Your task to perform on an android device: Add logitech g910 to the cart on ebay.com, then select checkout. Image 0: 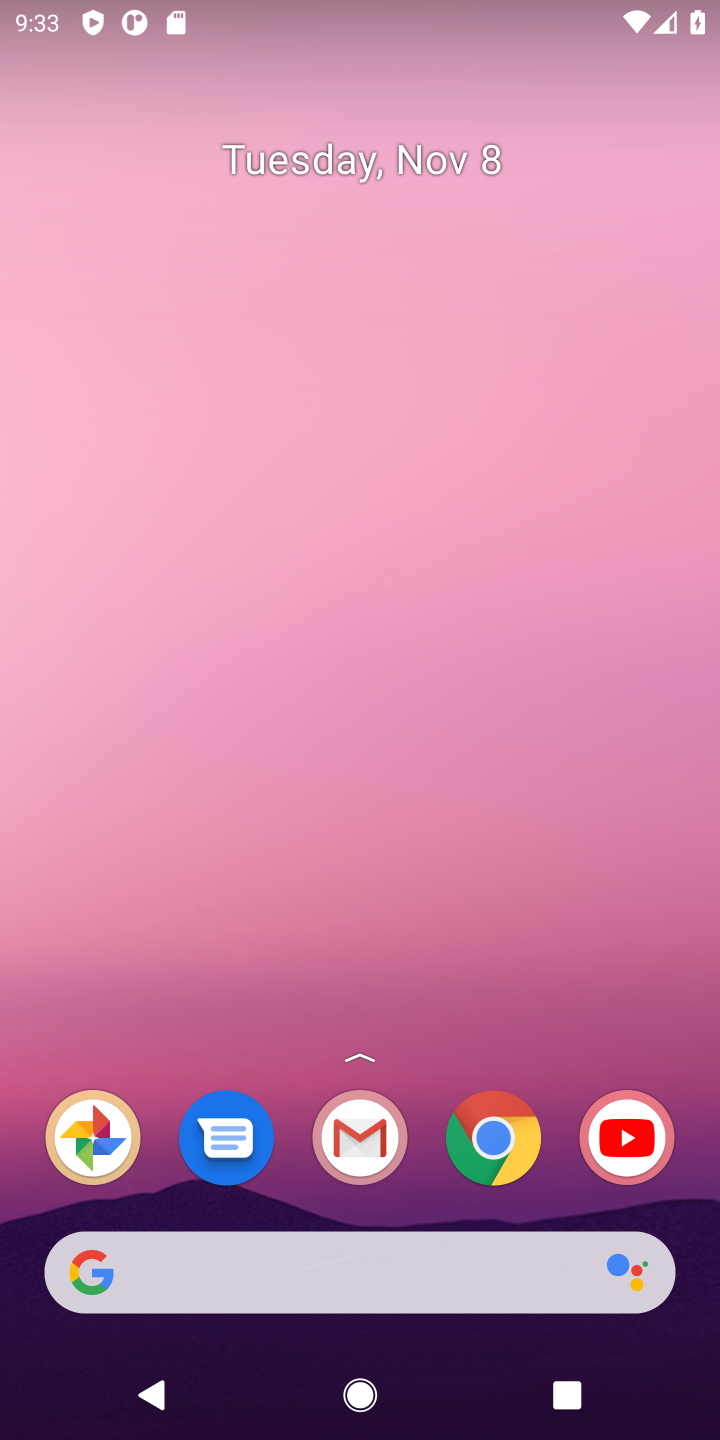
Step 0: press home button
Your task to perform on an android device: Add logitech g910 to the cart on ebay.com, then select checkout. Image 1: 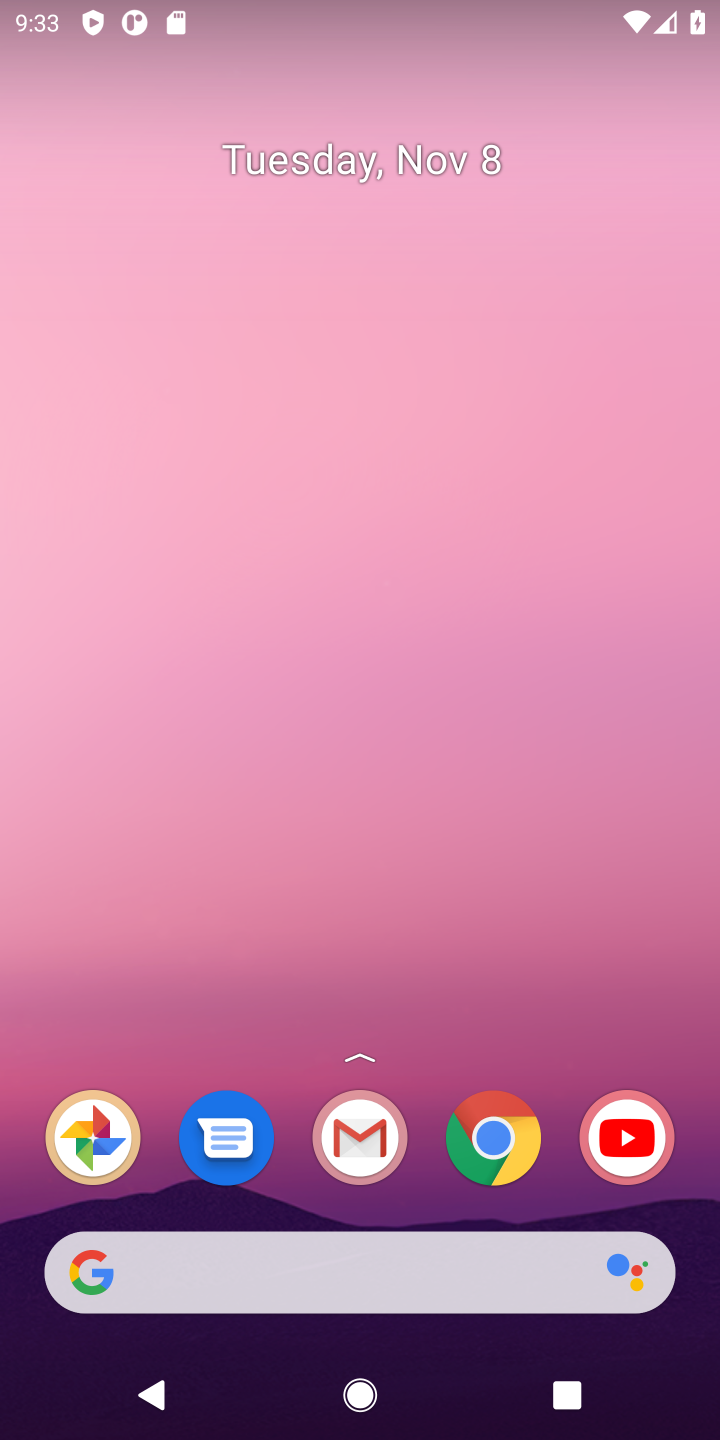
Step 1: click (497, 1141)
Your task to perform on an android device: Add logitech g910 to the cart on ebay.com, then select checkout. Image 2: 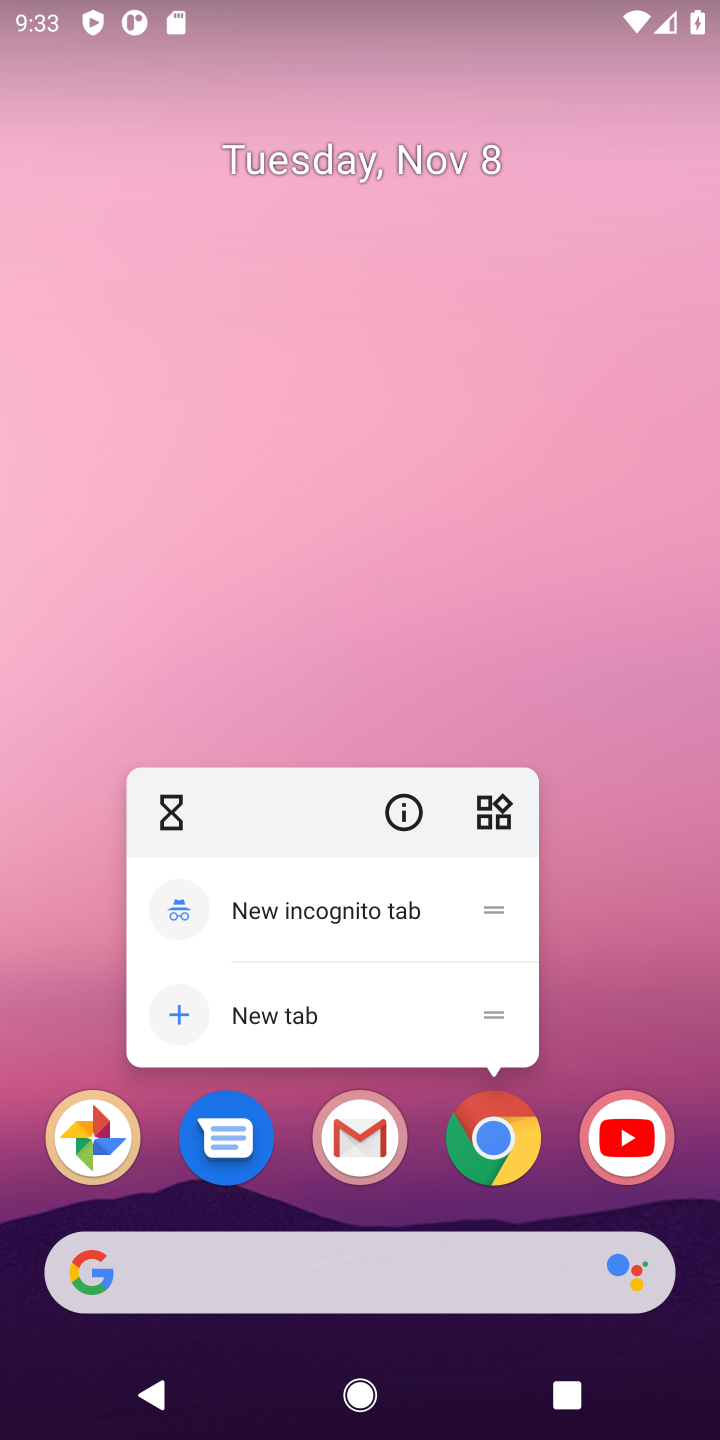
Step 2: click (497, 1148)
Your task to perform on an android device: Add logitech g910 to the cart on ebay.com, then select checkout. Image 3: 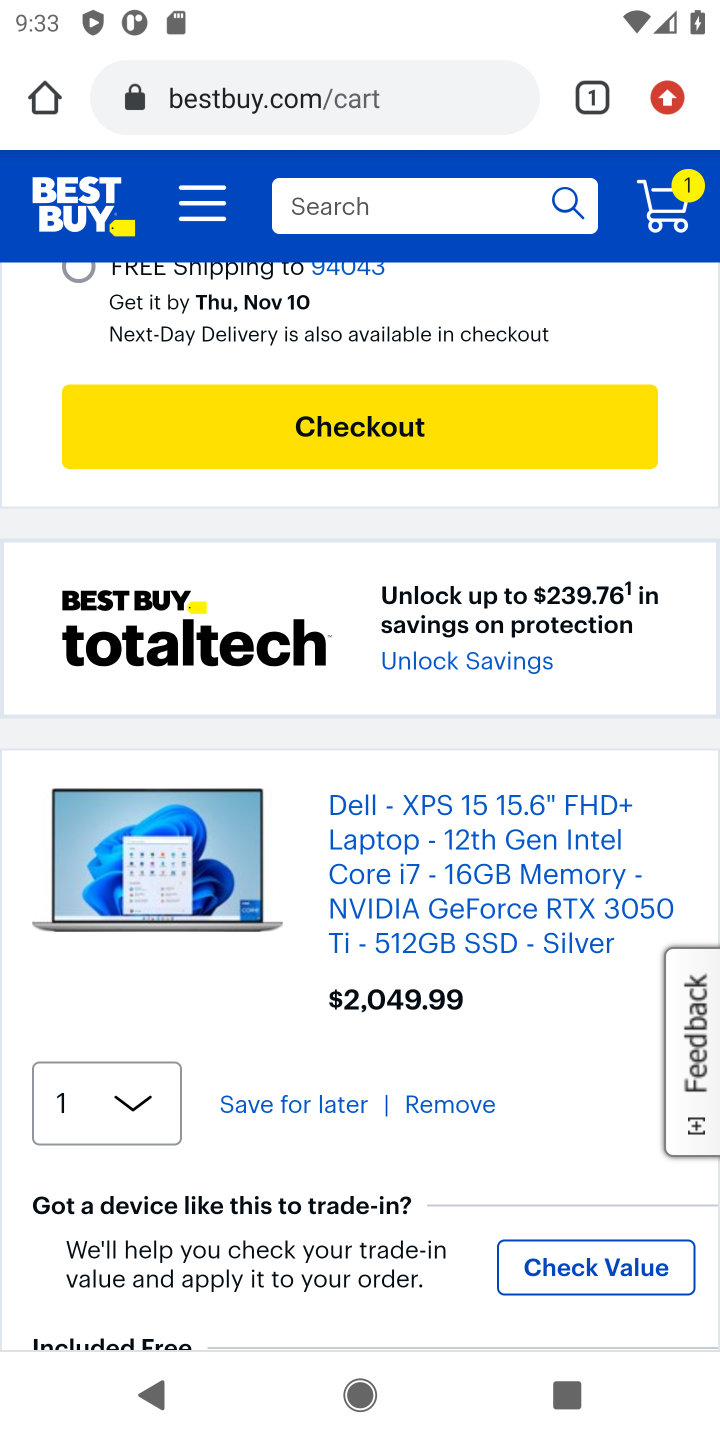
Step 3: click (382, 99)
Your task to perform on an android device: Add logitech g910 to the cart on ebay.com, then select checkout. Image 4: 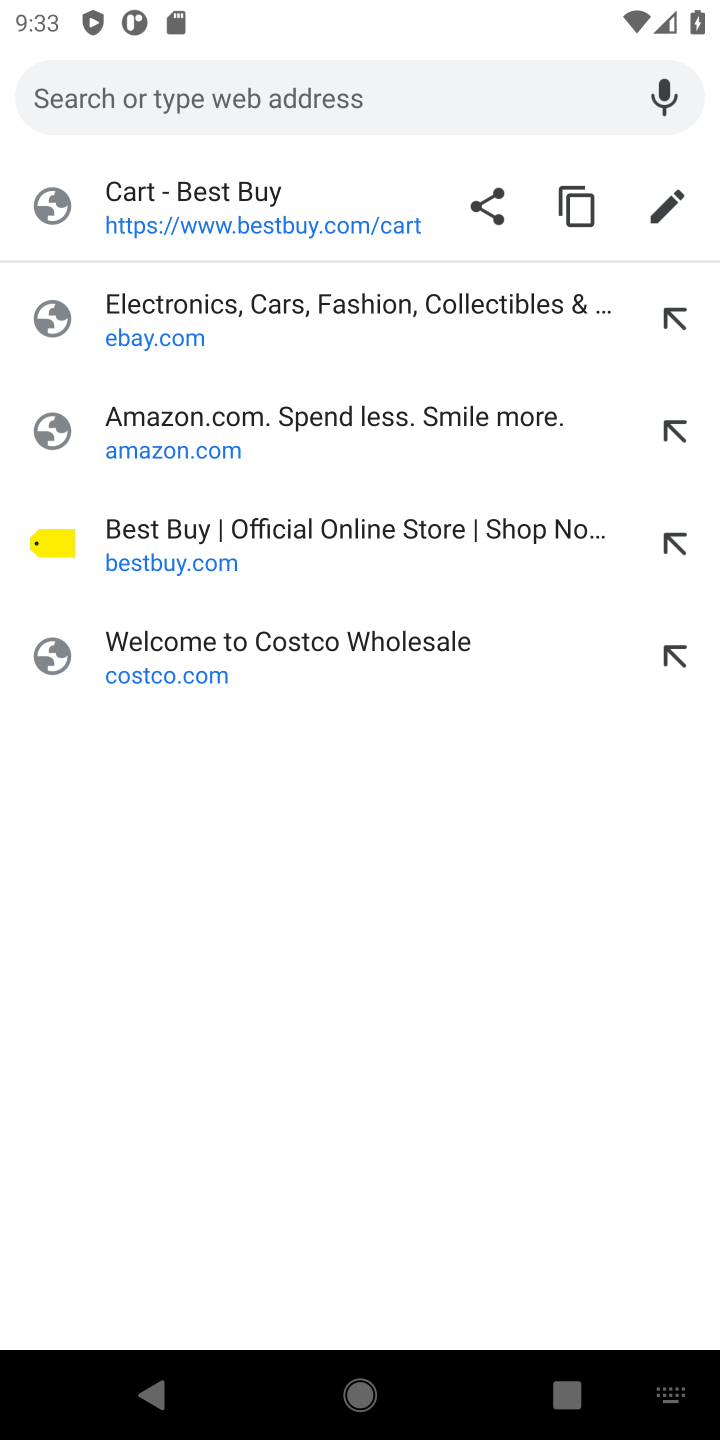
Step 4: click (158, 338)
Your task to perform on an android device: Add logitech g910 to the cart on ebay.com, then select checkout. Image 5: 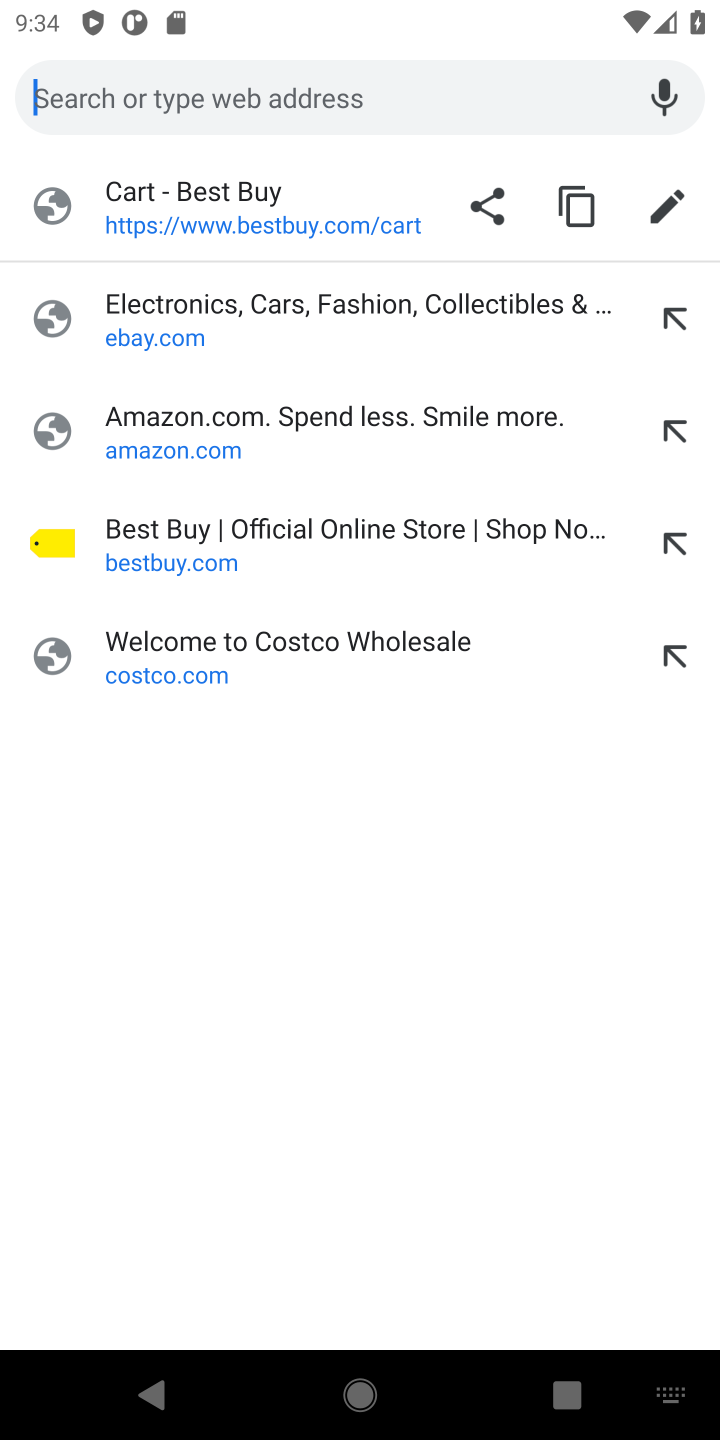
Step 5: click (129, 331)
Your task to perform on an android device: Add logitech g910 to the cart on ebay.com, then select checkout. Image 6: 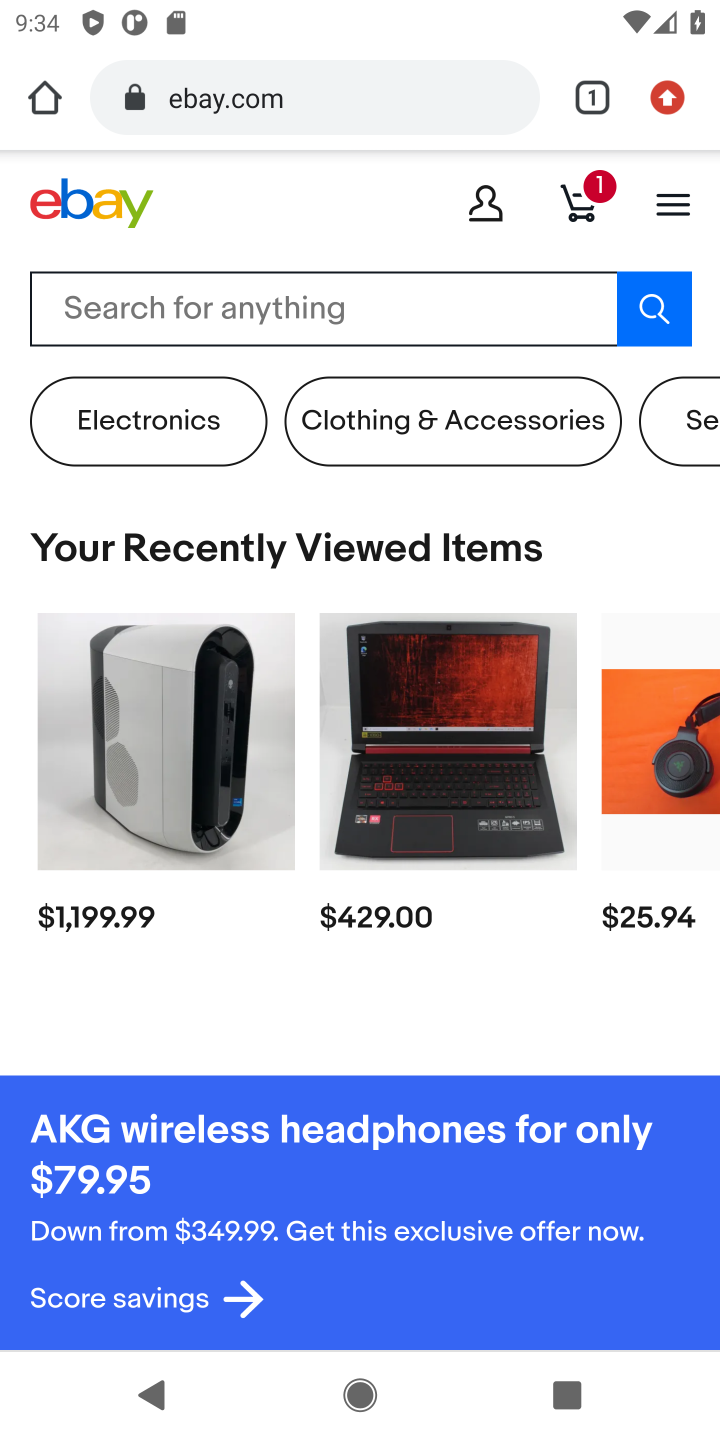
Step 6: drag from (349, 1001) to (664, 130)
Your task to perform on an android device: Add logitech g910 to the cart on ebay.com, then select checkout. Image 7: 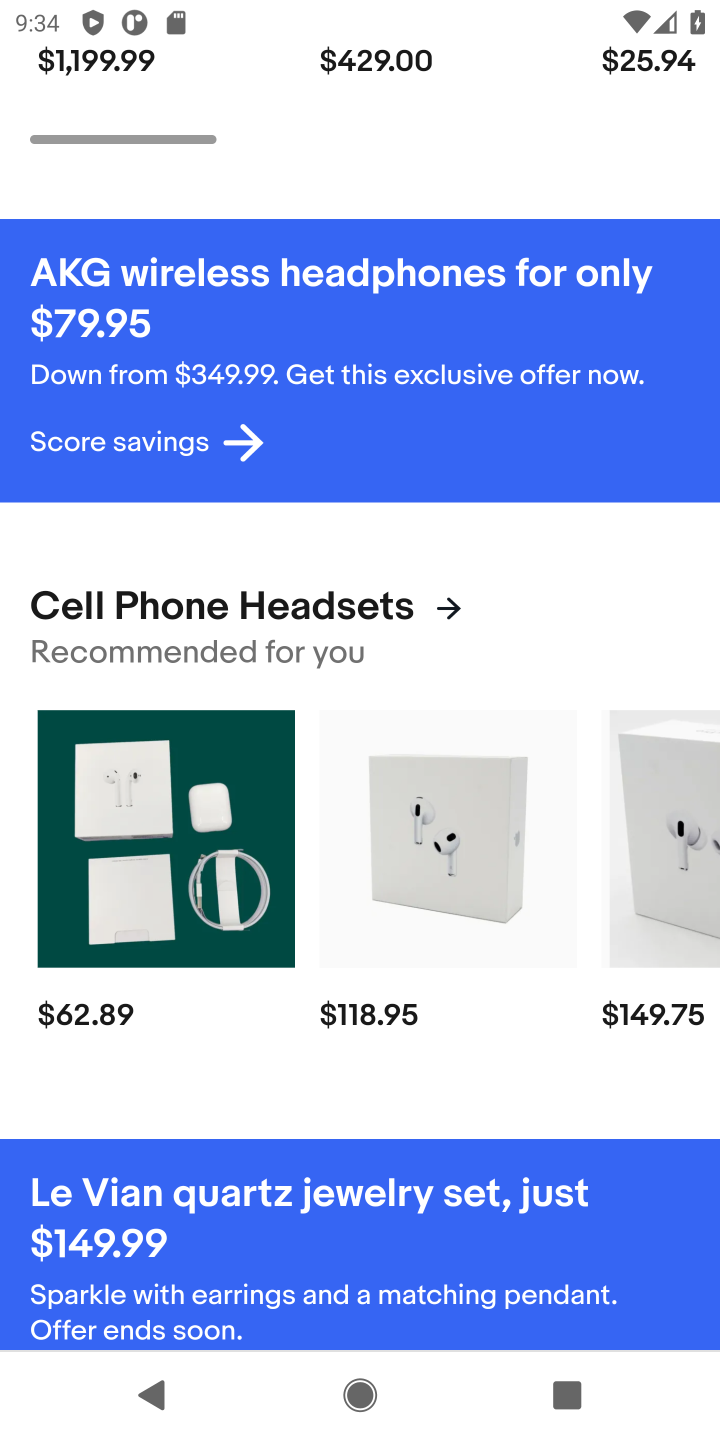
Step 7: drag from (504, 468) to (411, 1374)
Your task to perform on an android device: Add logitech g910 to the cart on ebay.com, then select checkout. Image 8: 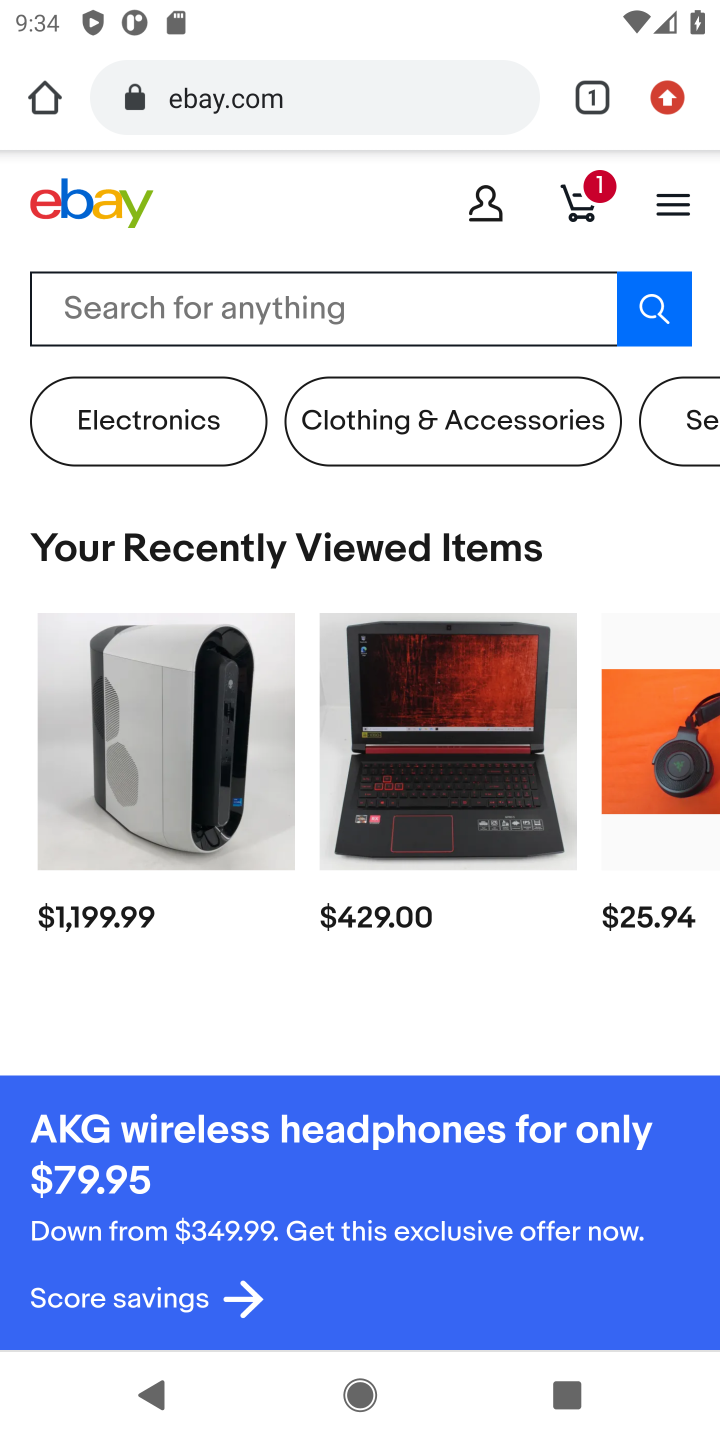
Step 8: click (276, 299)
Your task to perform on an android device: Add logitech g910 to the cart on ebay.com, then select checkout. Image 9: 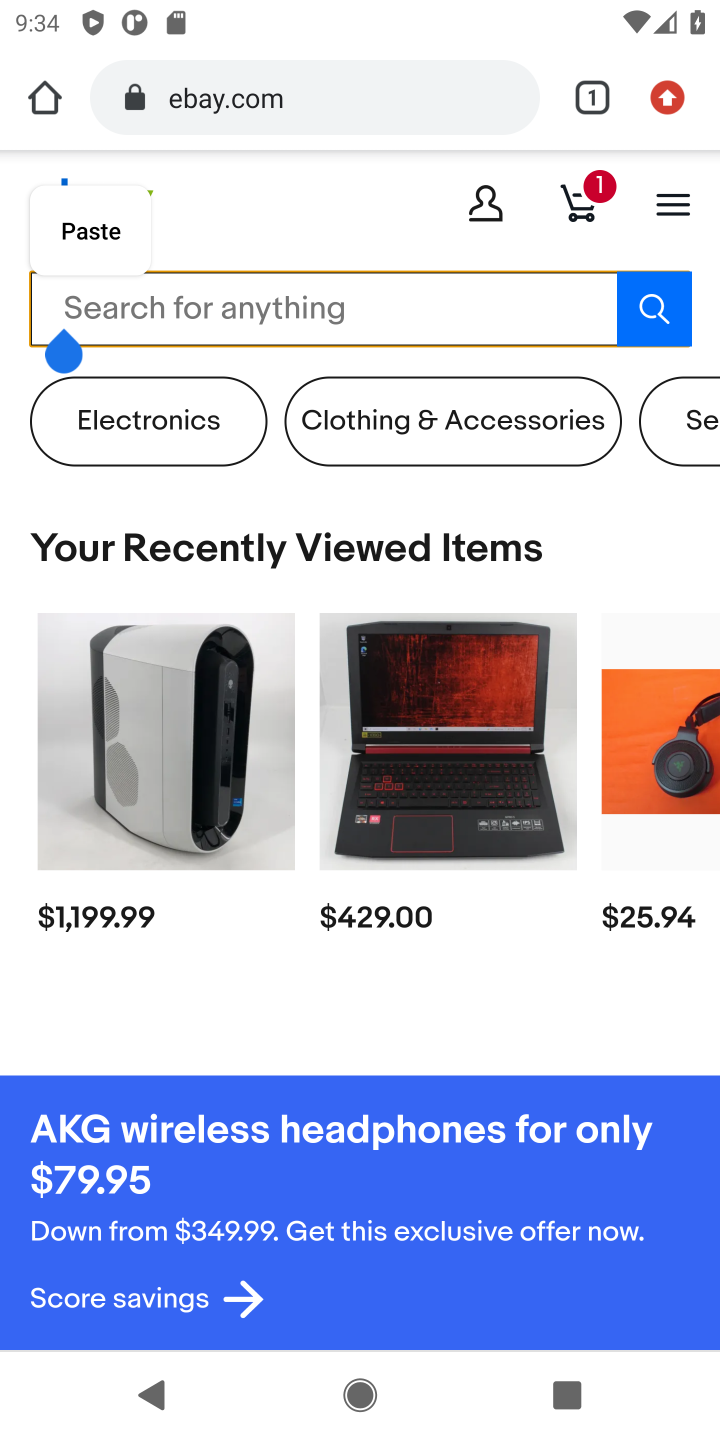
Step 9: type "logitech g910"
Your task to perform on an android device: Add logitech g910 to the cart on ebay.com, then select checkout. Image 10: 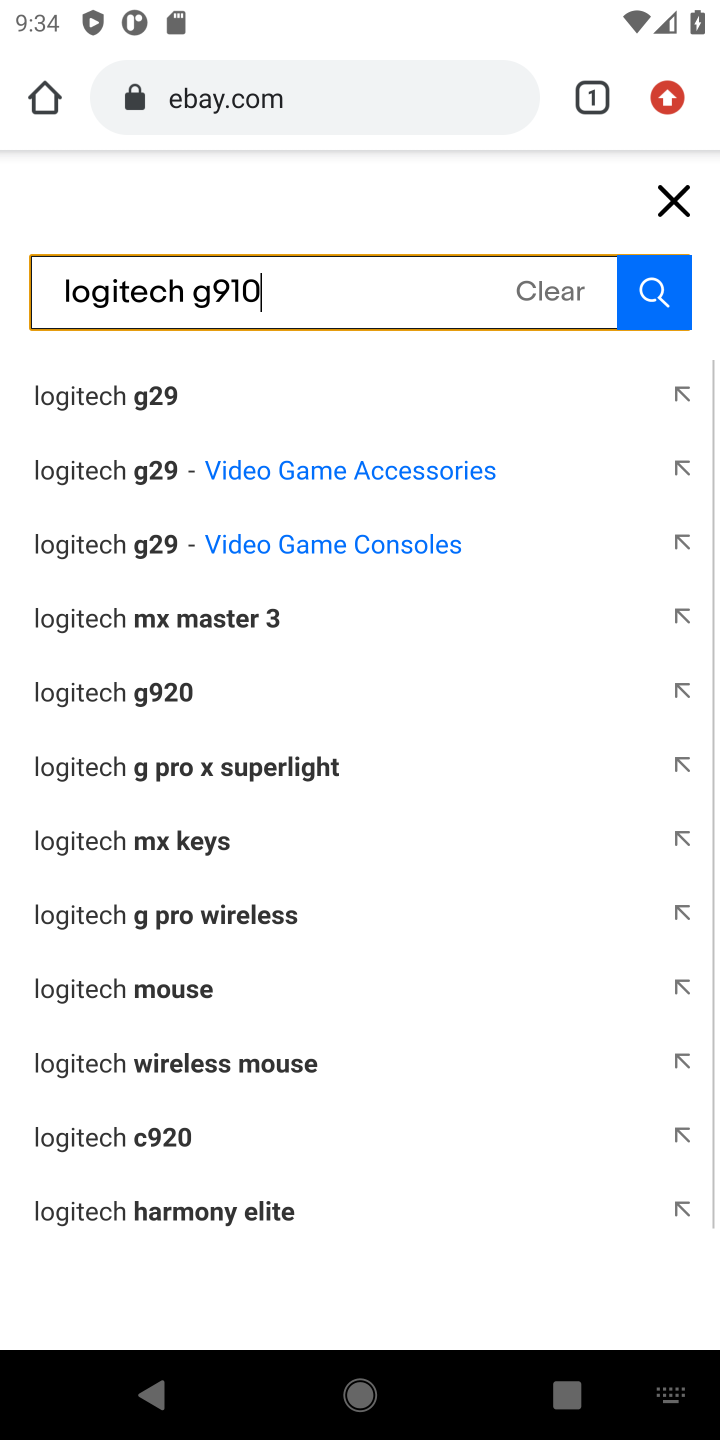
Step 10: press enter
Your task to perform on an android device: Add logitech g910 to the cart on ebay.com, then select checkout. Image 11: 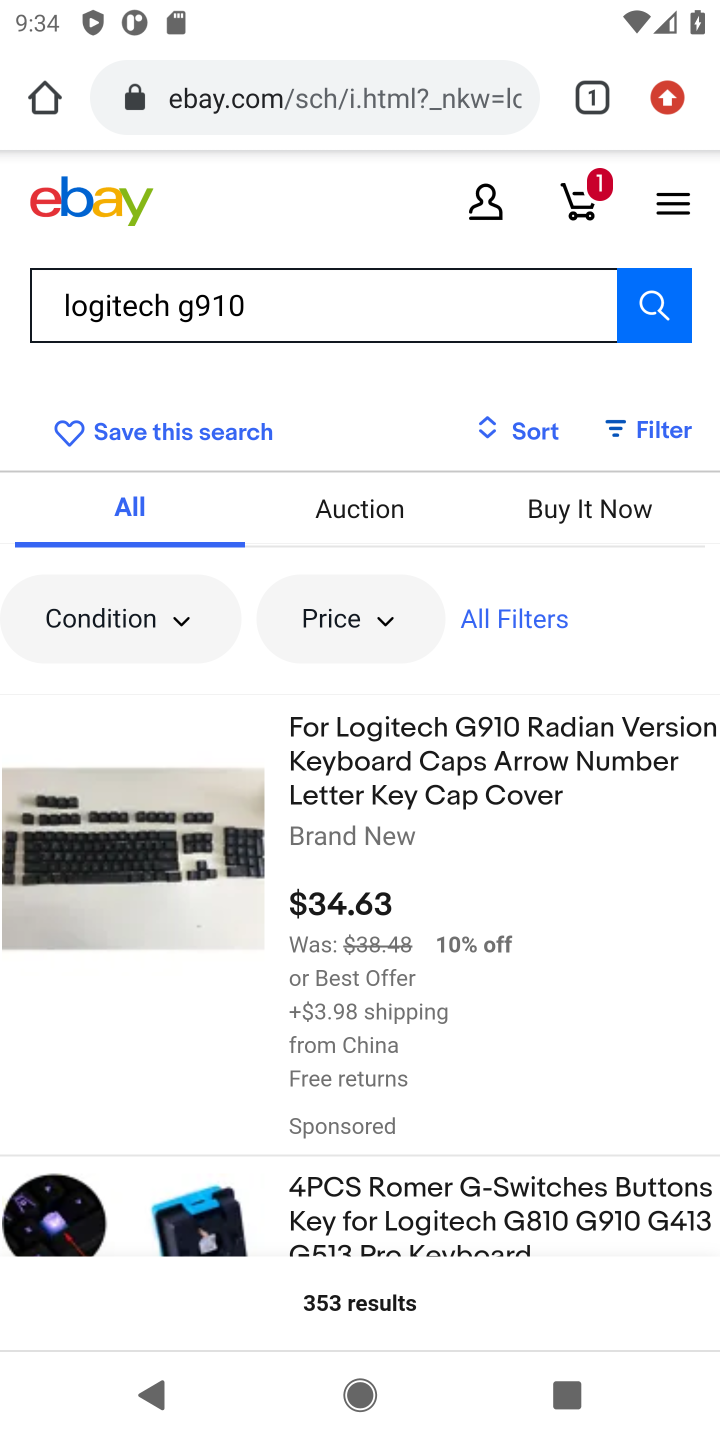
Step 11: drag from (474, 1242) to (530, 836)
Your task to perform on an android device: Add logitech g910 to the cart on ebay.com, then select checkout. Image 12: 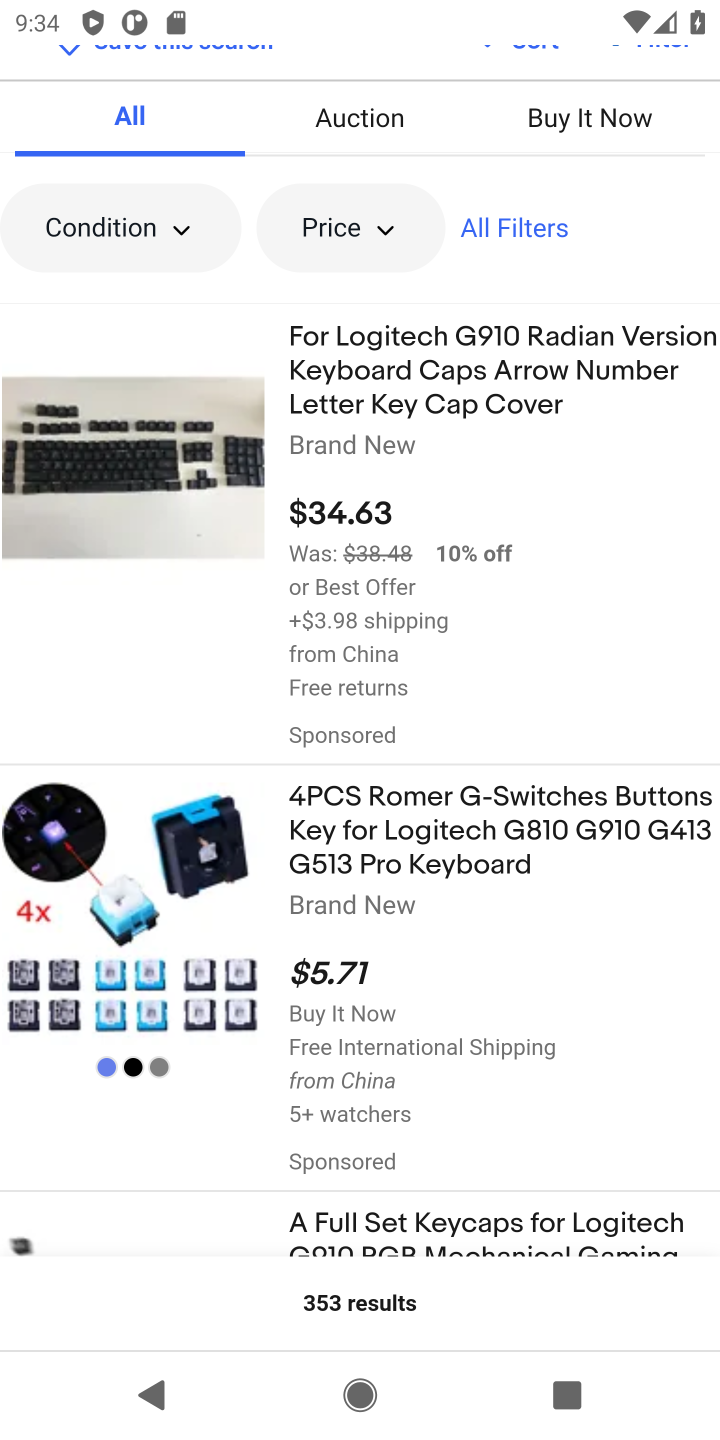
Step 12: drag from (525, 1251) to (639, 746)
Your task to perform on an android device: Add logitech g910 to the cart on ebay.com, then select checkout. Image 13: 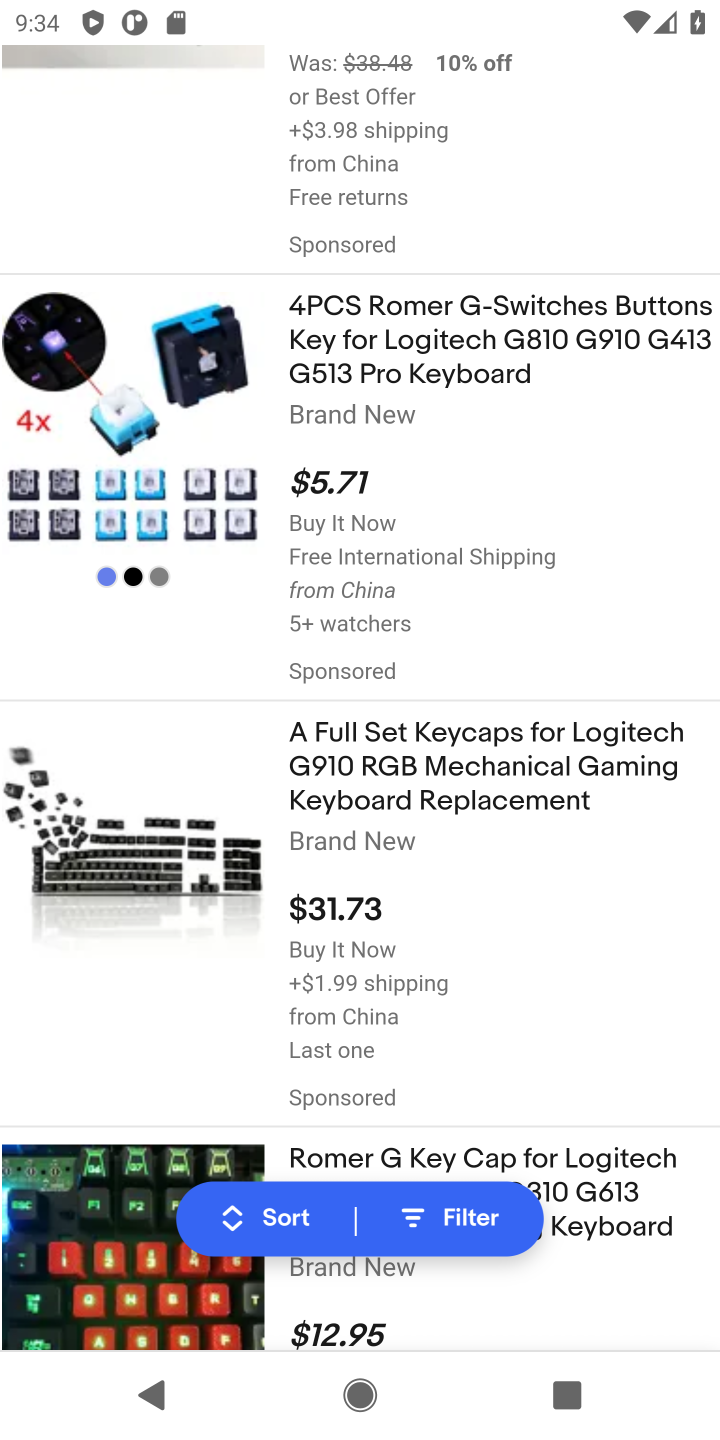
Step 13: drag from (605, 1228) to (613, 291)
Your task to perform on an android device: Add logitech g910 to the cart on ebay.com, then select checkout. Image 14: 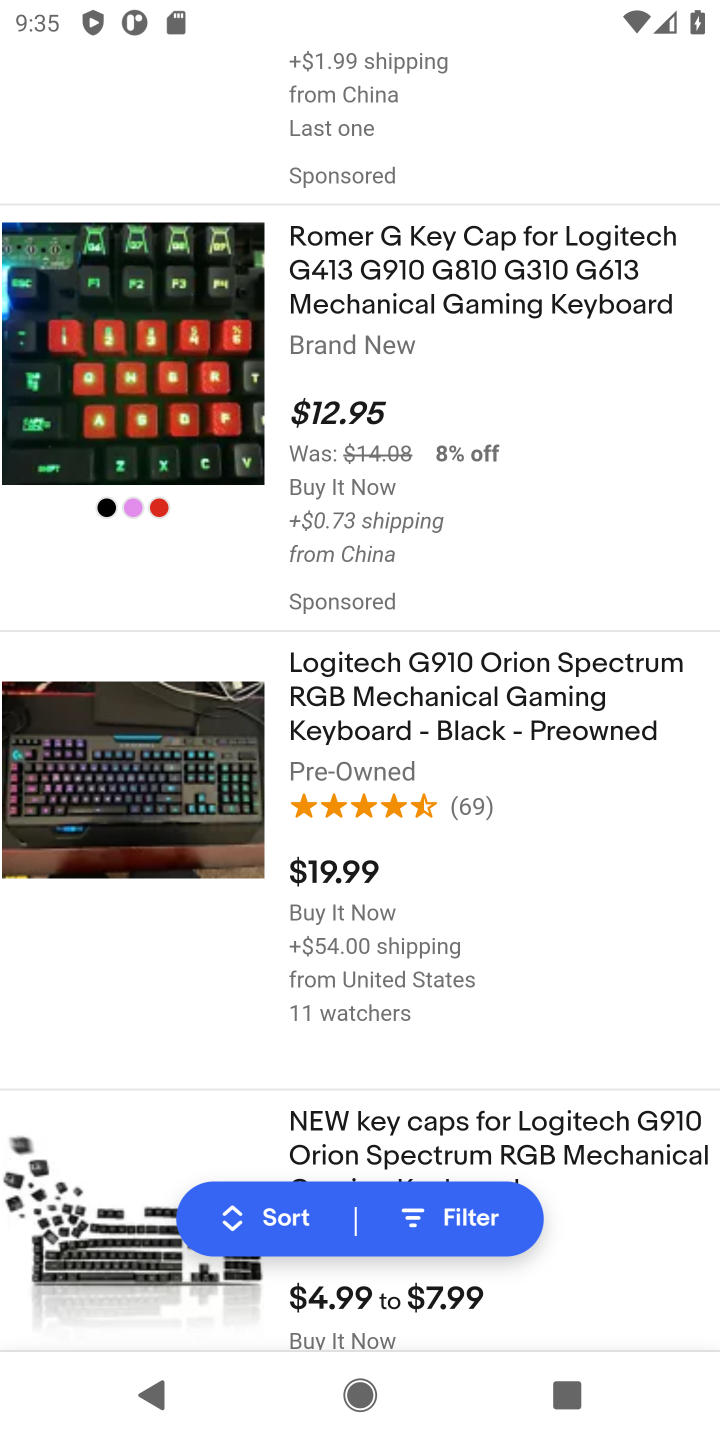
Step 14: drag from (464, 954) to (570, 331)
Your task to perform on an android device: Add logitech g910 to the cart on ebay.com, then select checkout. Image 15: 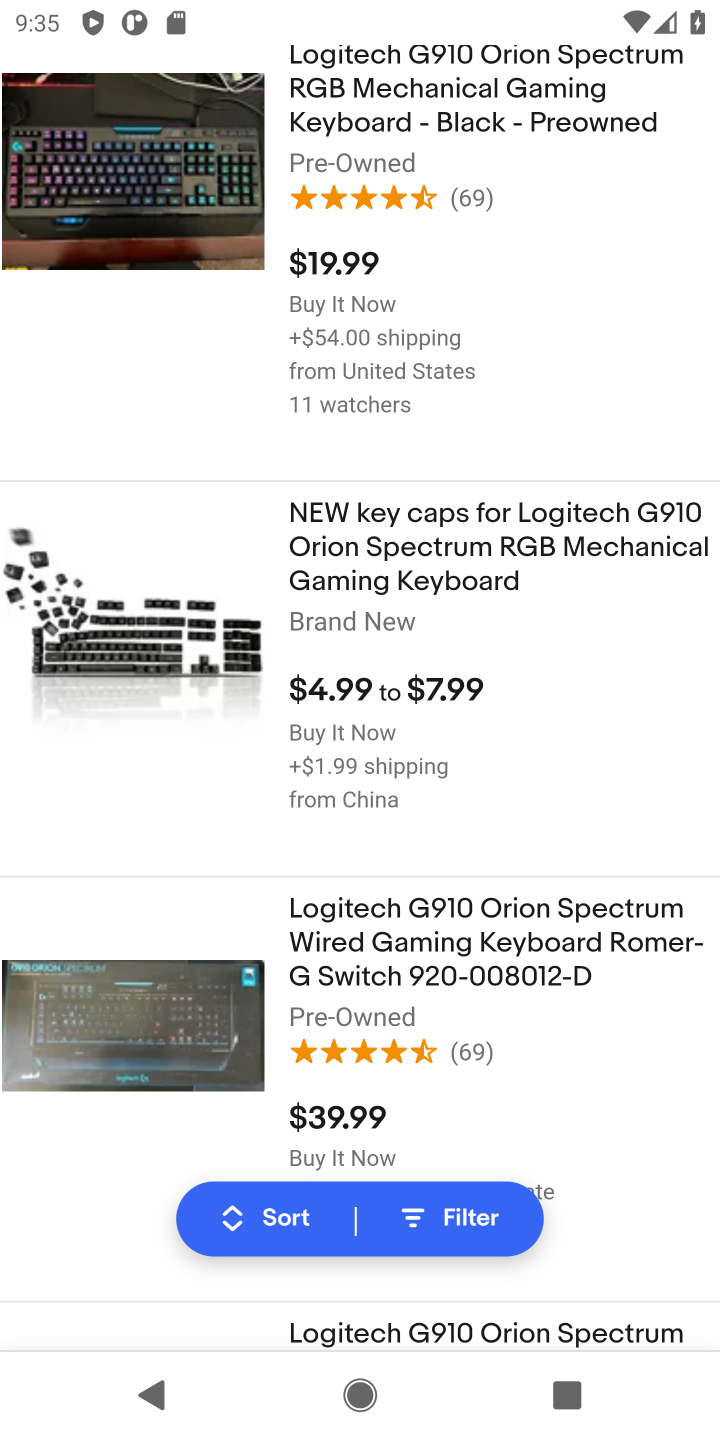
Step 15: drag from (549, 285) to (416, 866)
Your task to perform on an android device: Add logitech g910 to the cart on ebay.com, then select checkout. Image 16: 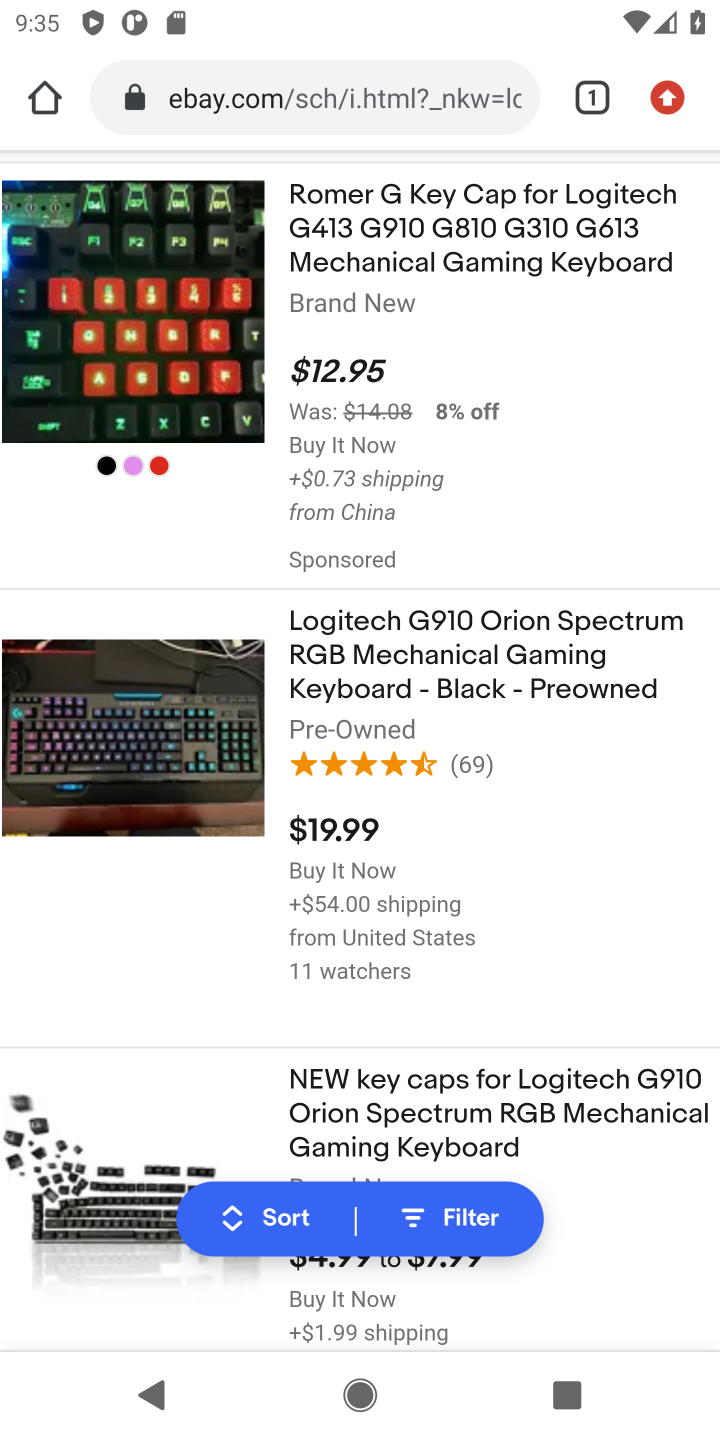
Step 16: click (426, 691)
Your task to perform on an android device: Add logitech g910 to the cart on ebay.com, then select checkout. Image 17: 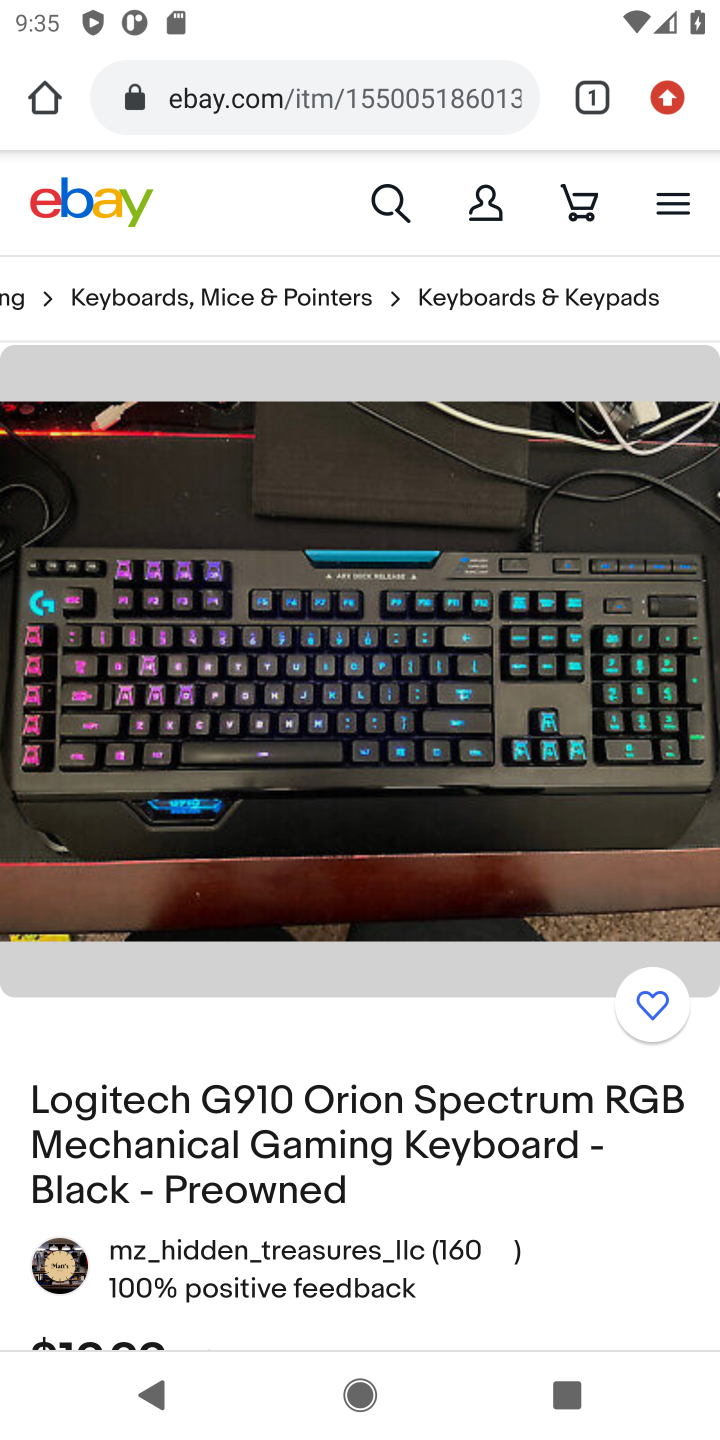
Step 17: drag from (413, 997) to (719, 368)
Your task to perform on an android device: Add logitech g910 to the cart on ebay.com, then select checkout. Image 18: 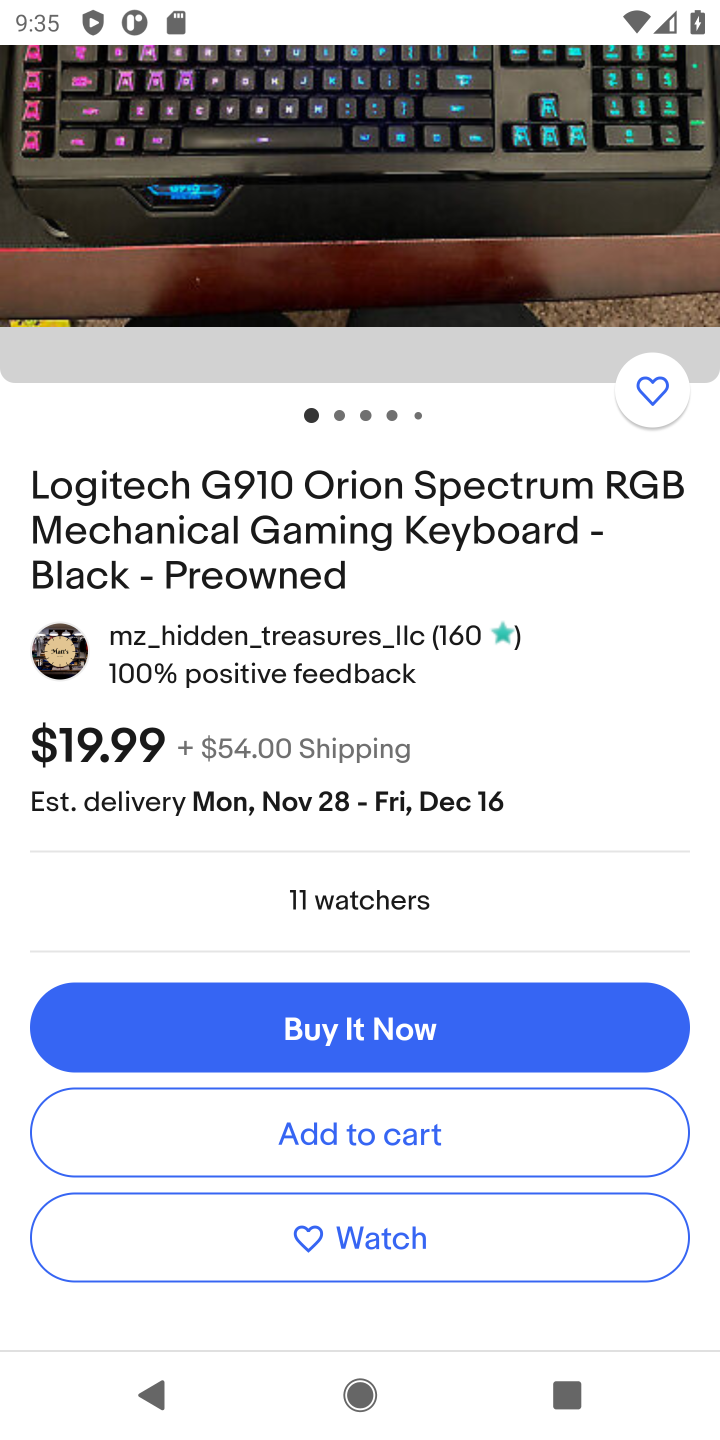
Step 18: click (408, 1132)
Your task to perform on an android device: Add logitech g910 to the cart on ebay.com, then select checkout. Image 19: 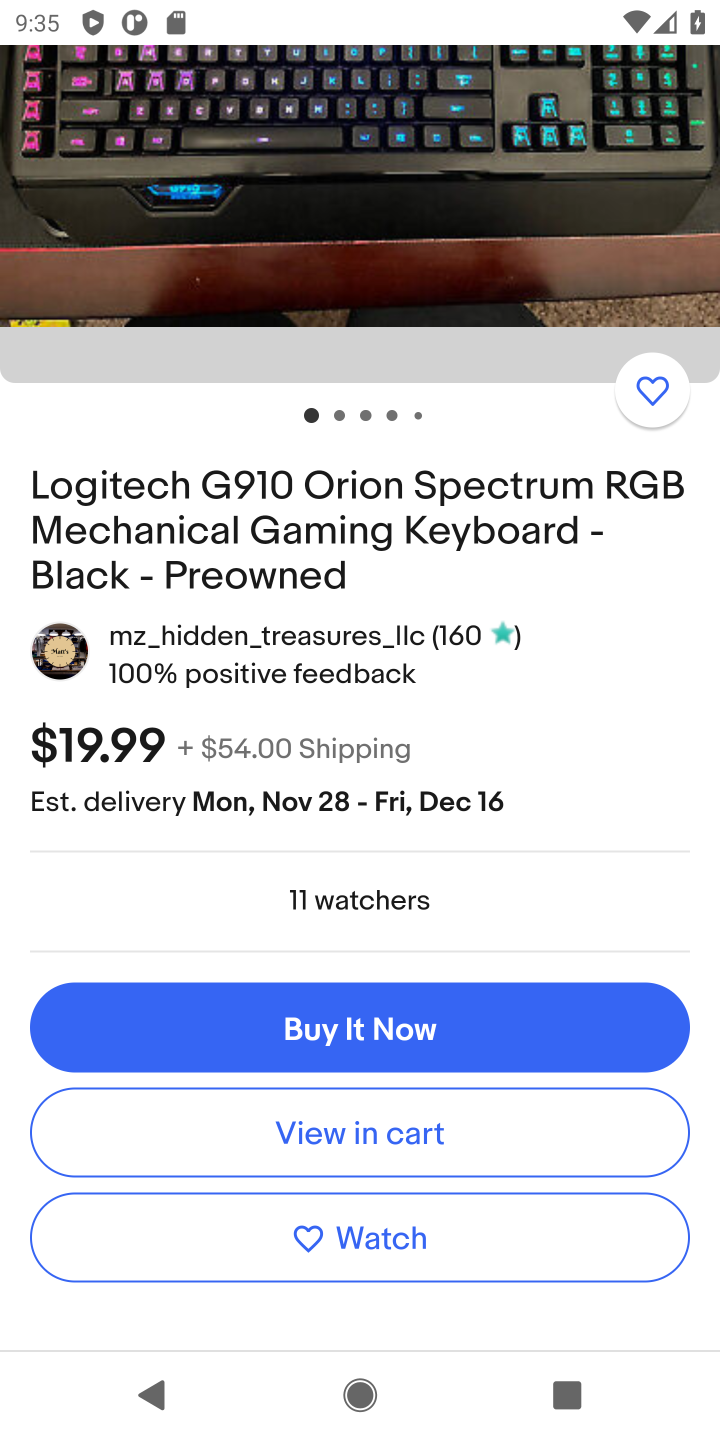
Step 19: click (393, 1122)
Your task to perform on an android device: Add logitech g910 to the cart on ebay.com, then select checkout. Image 20: 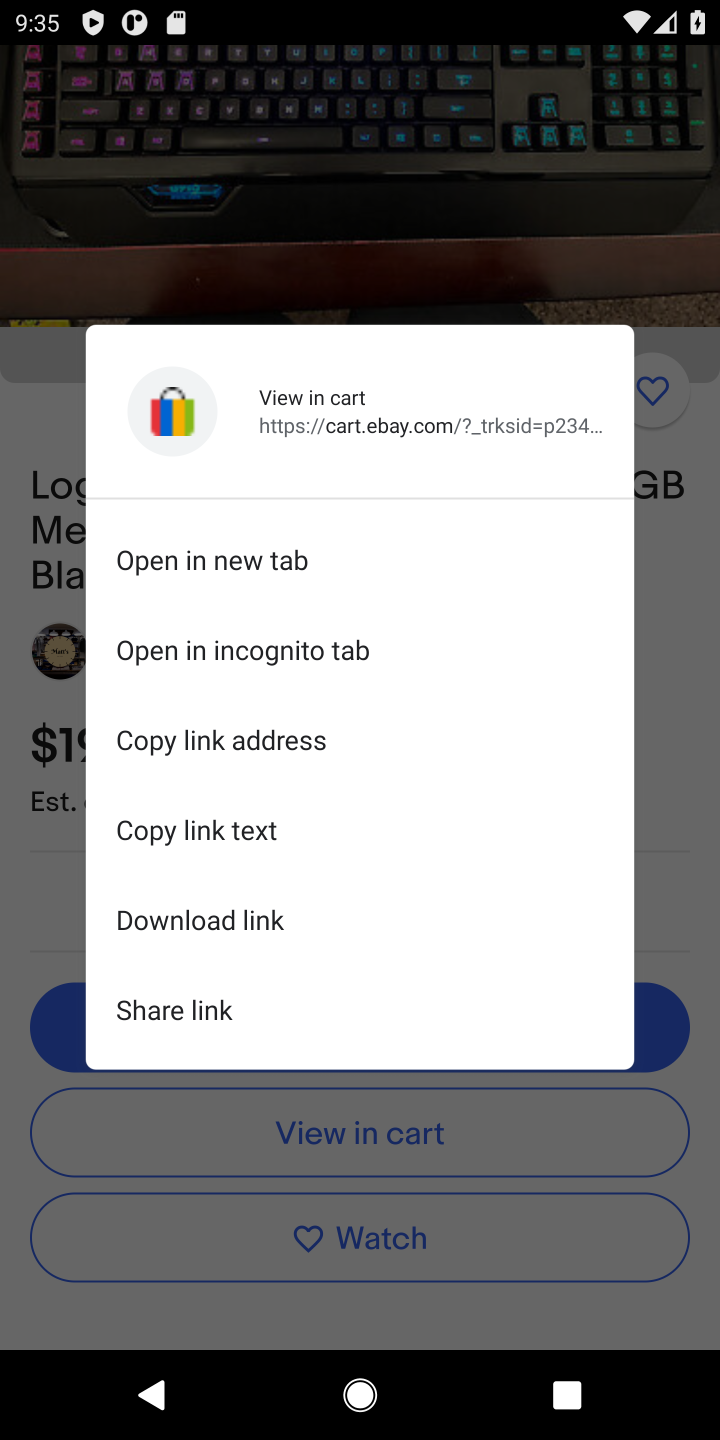
Step 20: click (404, 1126)
Your task to perform on an android device: Add logitech g910 to the cart on ebay.com, then select checkout. Image 21: 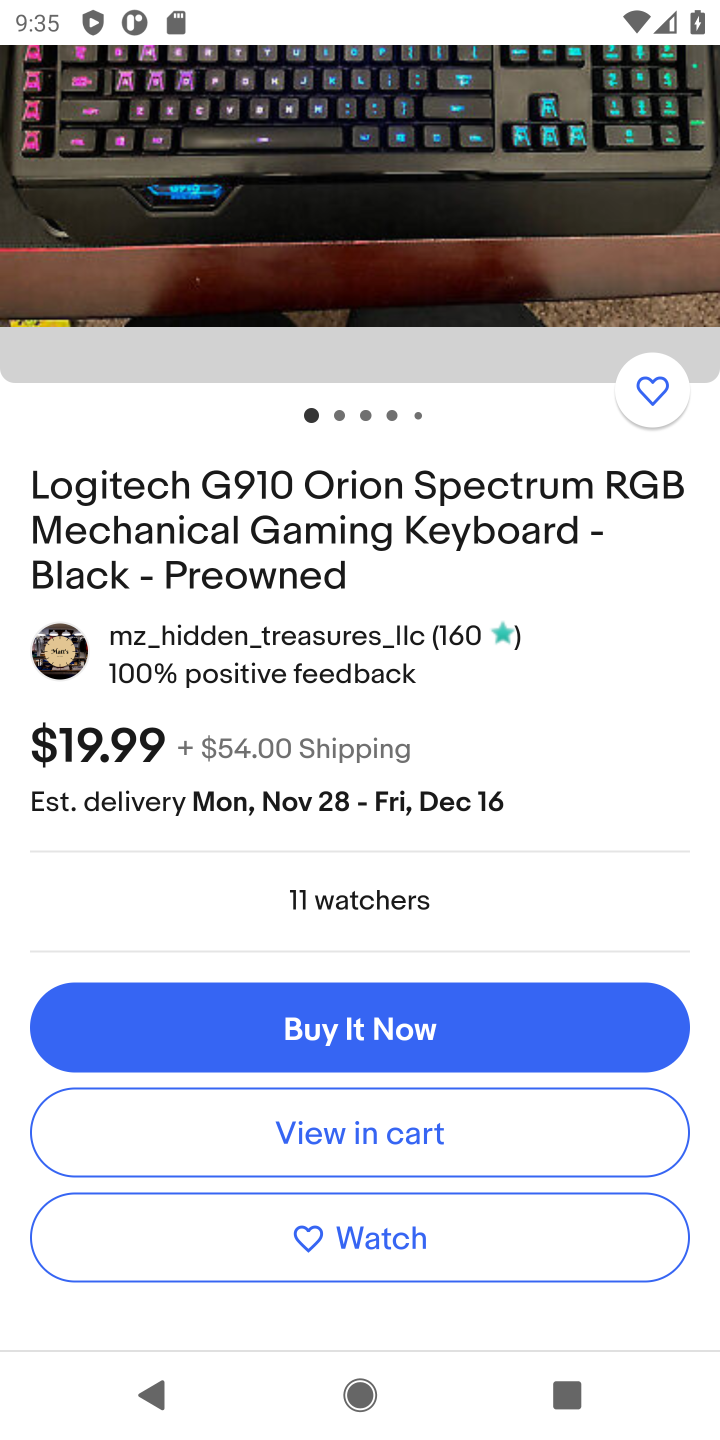
Step 21: click (362, 1124)
Your task to perform on an android device: Add logitech g910 to the cart on ebay.com, then select checkout. Image 22: 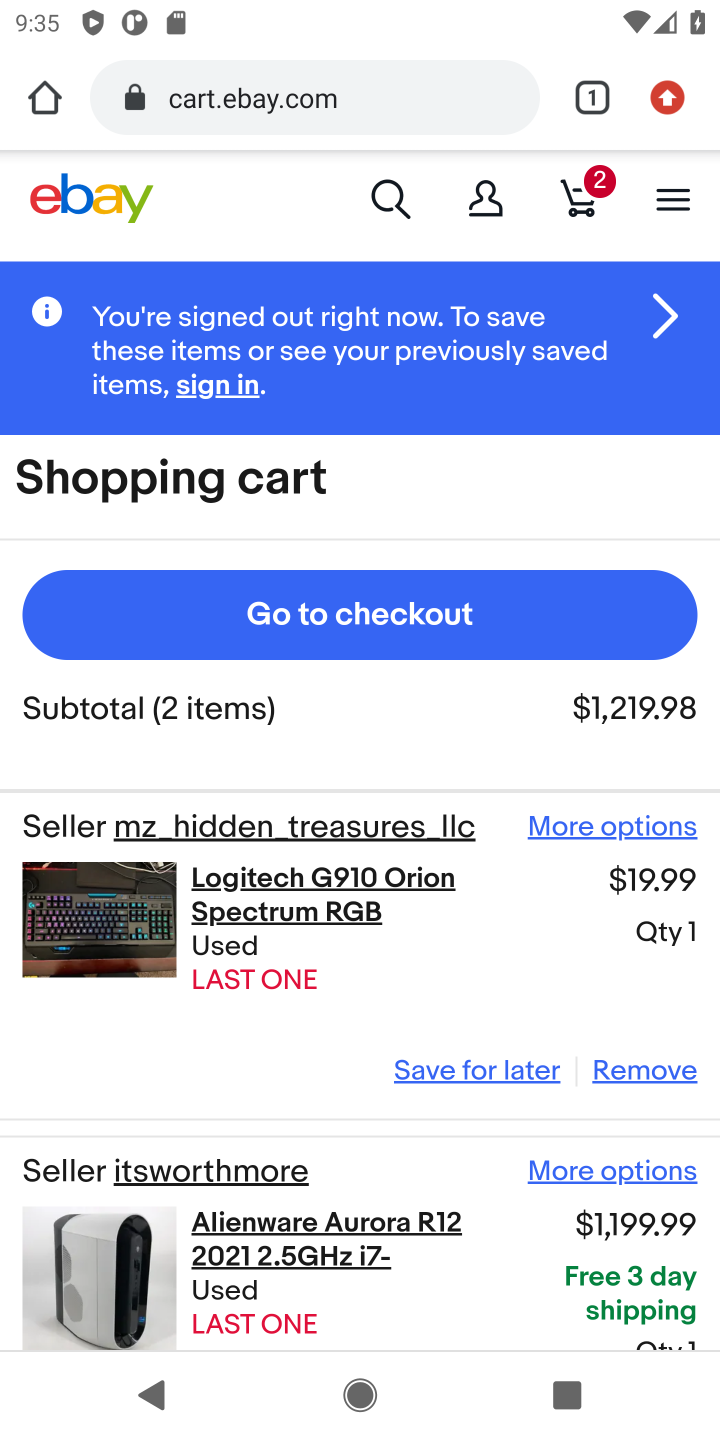
Step 22: drag from (309, 1040) to (529, 420)
Your task to perform on an android device: Add logitech g910 to the cart on ebay.com, then select checkout. Image 23: 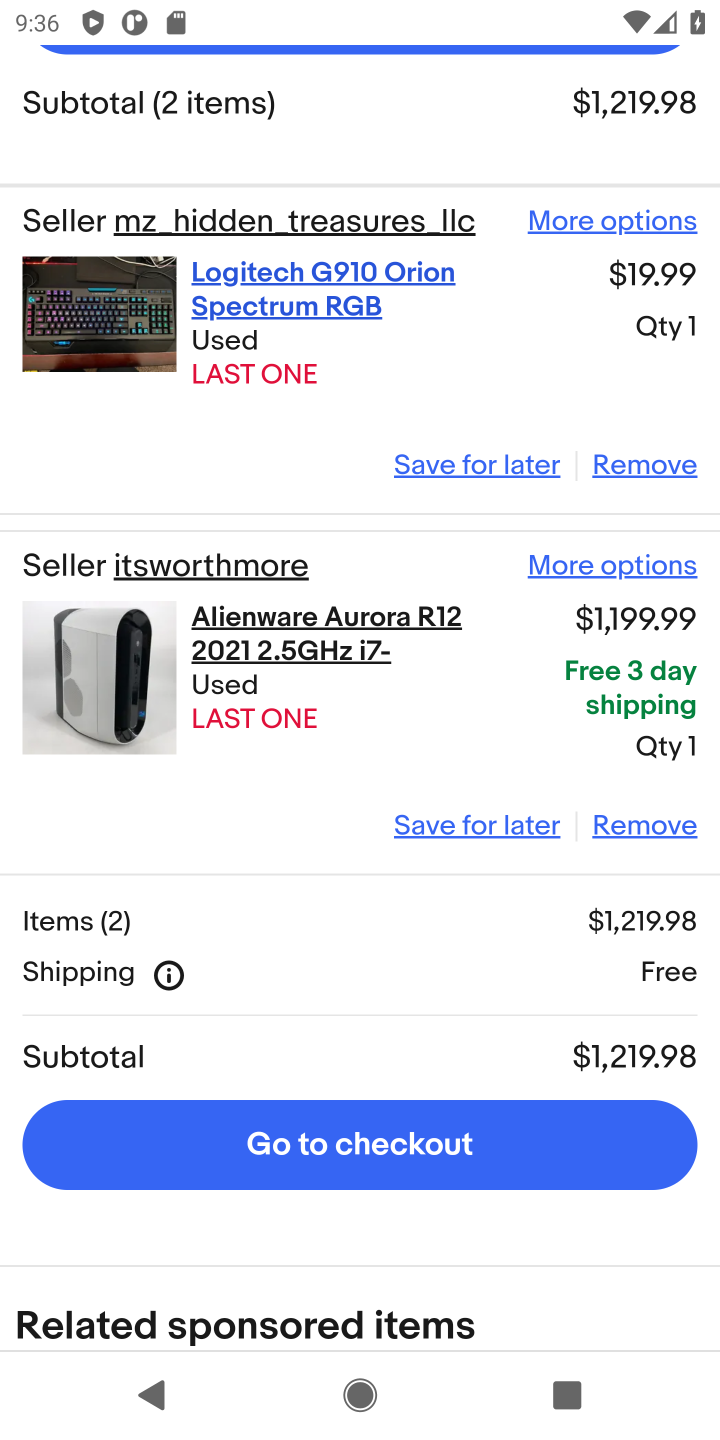
Step 23: click (683, 816)
Your task to perform on an android device: Add logitech g910 to the cart on ebay.com, then select checkout. Image 24: 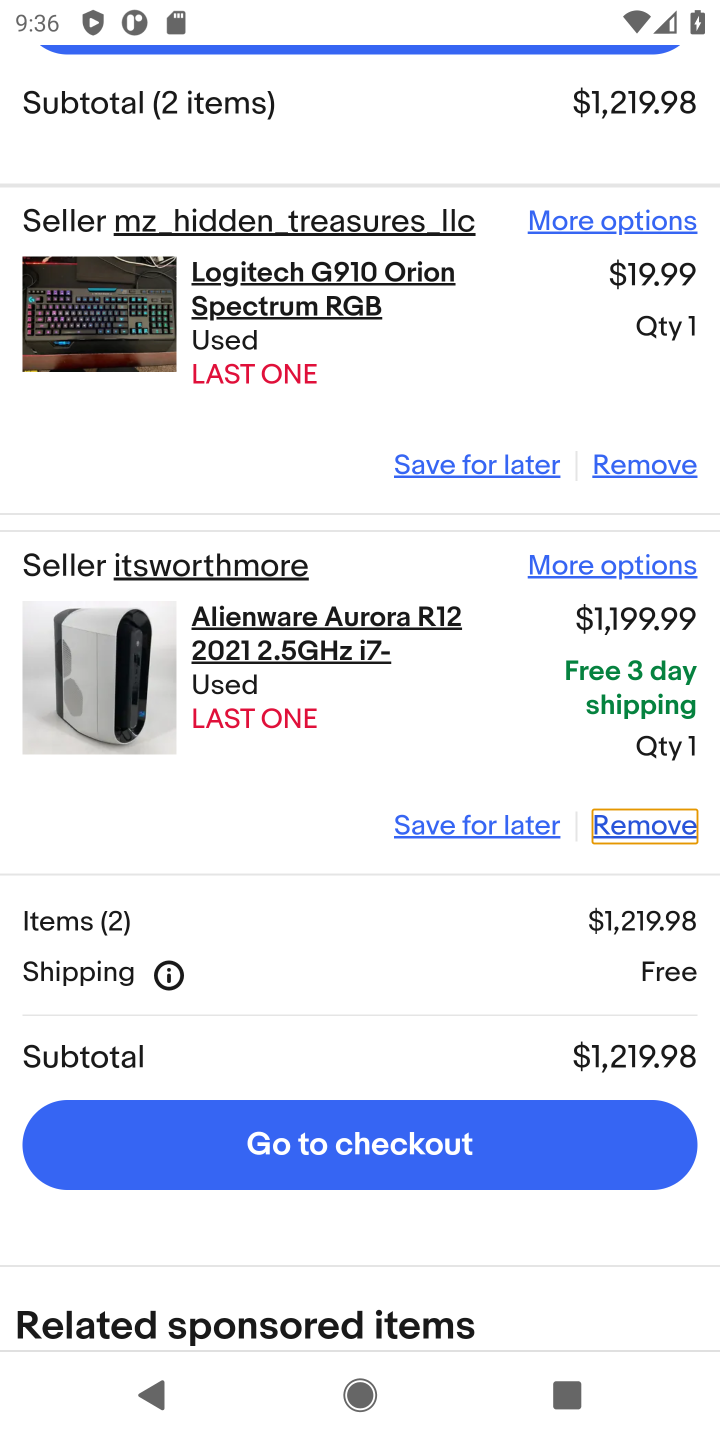
Step 24: click (655, 821)
Your task to perform on an android device: Add logitech g910 to the cart on ebay.com, then select checkout. Image 25: 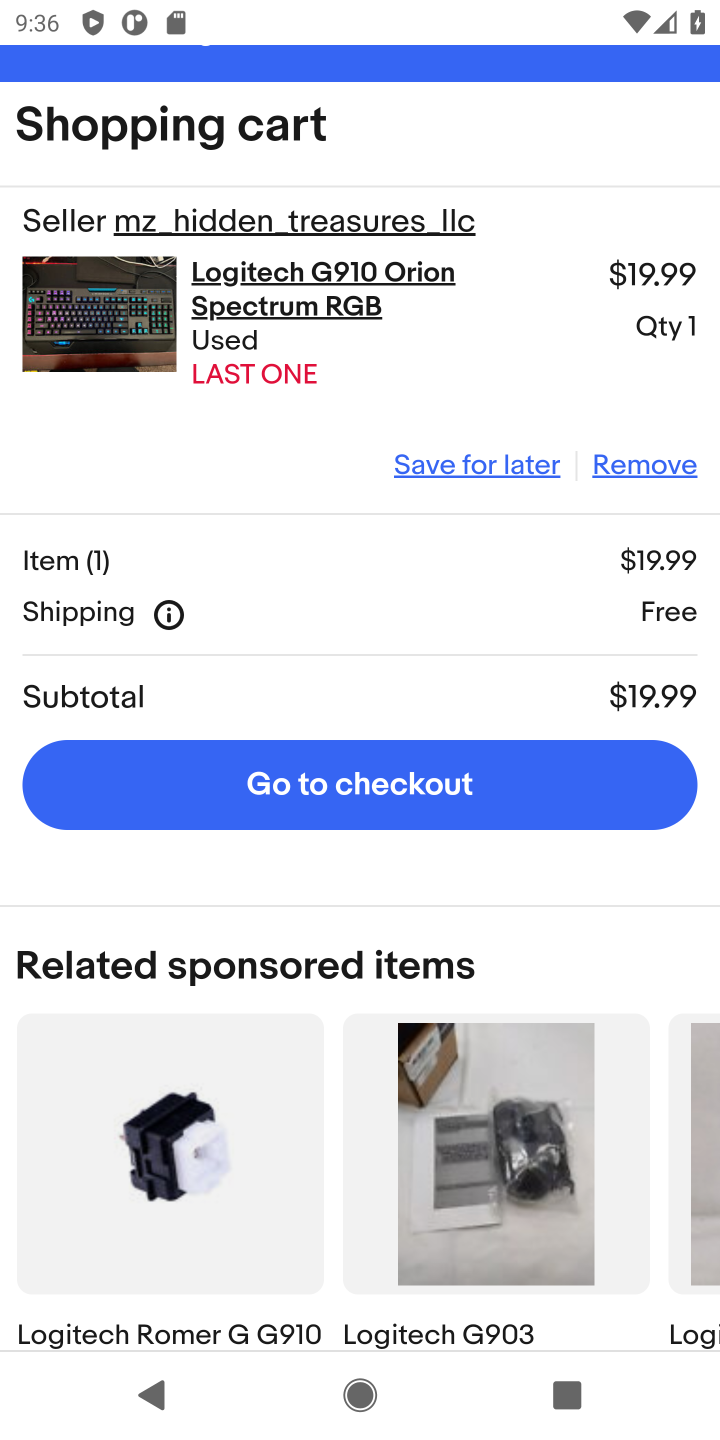
Step 25: click (314, 785)
Your task to perform on an android device: Add logitech g910 to the cart on ebay.com, then select checkout. Image 26: 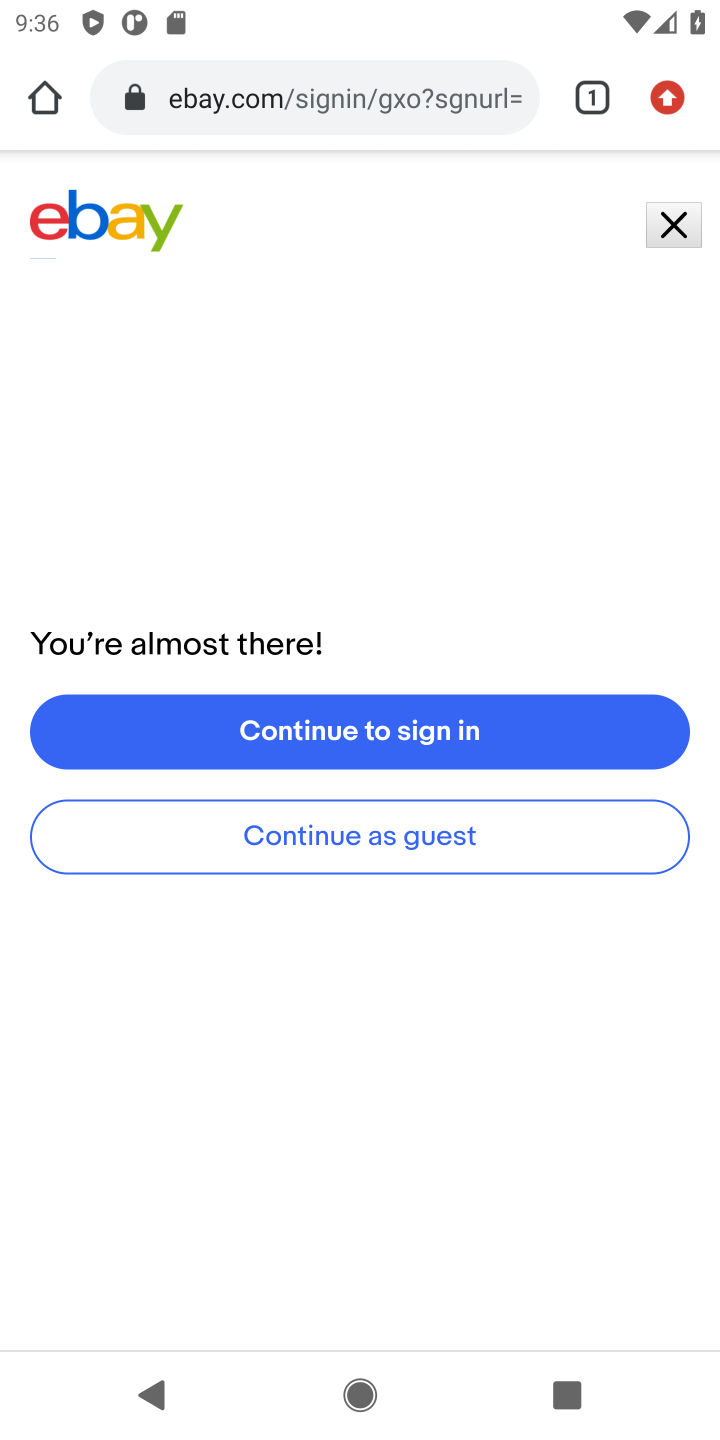
Step 26: task complete